Your task to perform on an android device: turn off notifications in google photos Image 0: 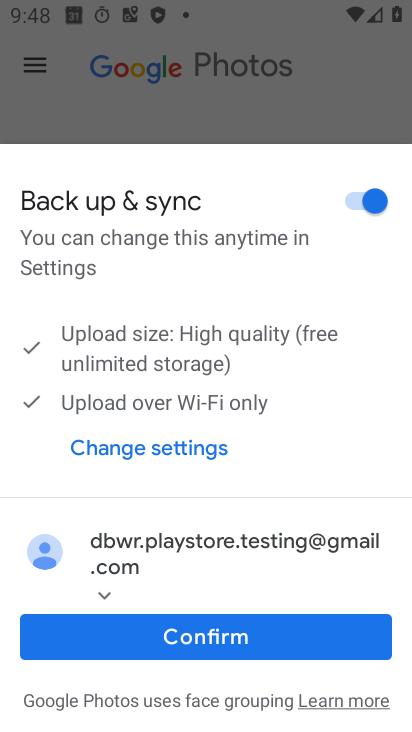
Step 0: press home button
Your task to perform on an android device: turn off notifications in google photos Image 1: 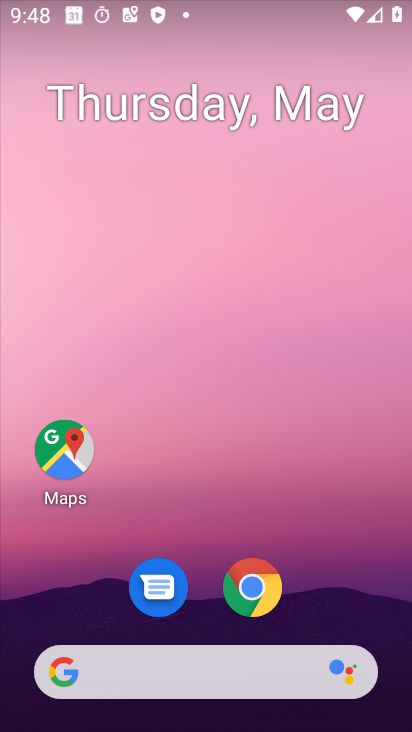
Step 1: drag from (362, 643) to (371, 18)
Your task to perform on an android device: turn off notifications in google photos Image 2: 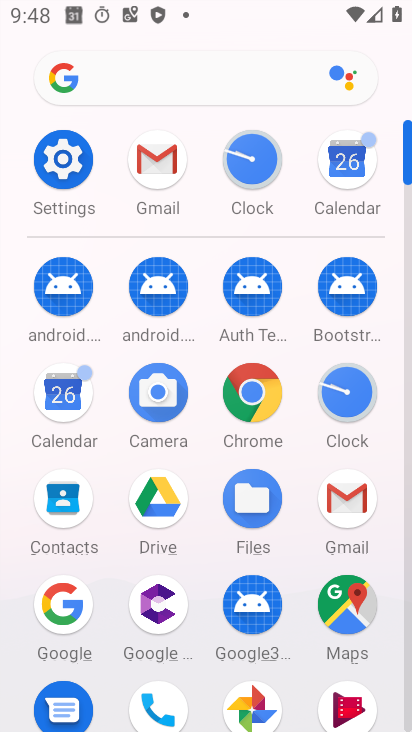
Step 2: click (407, 537)
Your task to perform on an android device: turn off notifications in google photos Image 3: 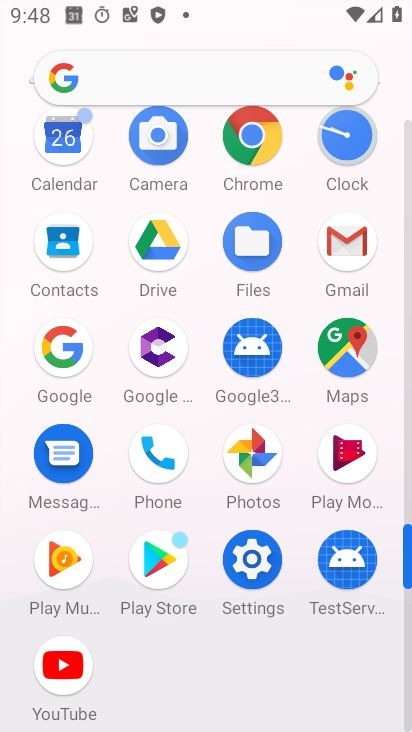
Step 3: click (258, 455)
Your task to perform on an android device: turn off notifications in google photos Image 4: 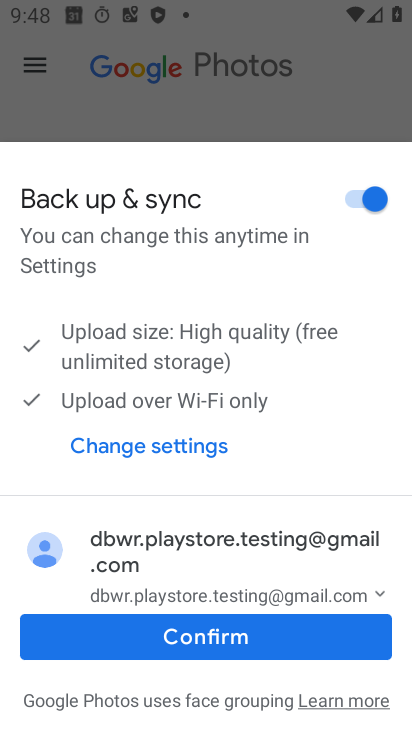
Step 4: click (218, 642)
Your task to perform on an android device: turn off notifications in google photos Image 5: 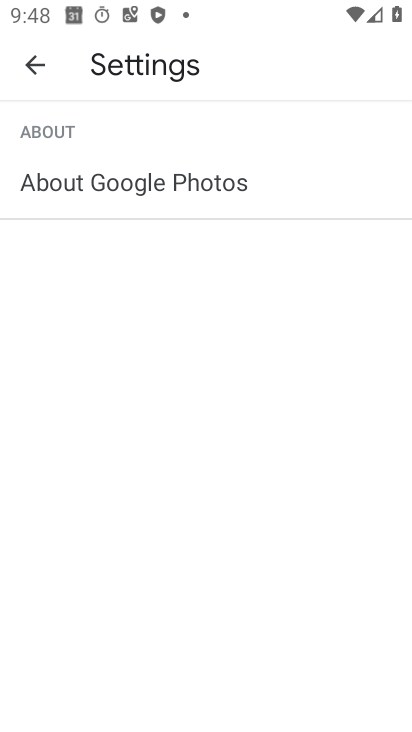
Step 5: click (38, 66)
Your task to perform on an android device: turn off notifications in google photos Image 6: 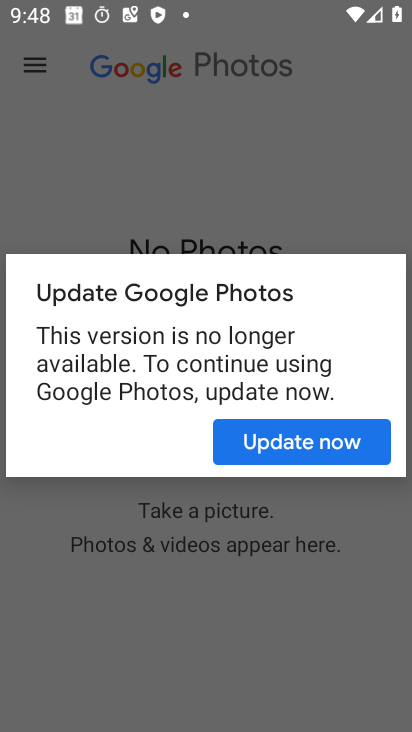
Step 6: click (321, 452)
Your task to perform on an android device: turn off notifications in google photos Image 7: 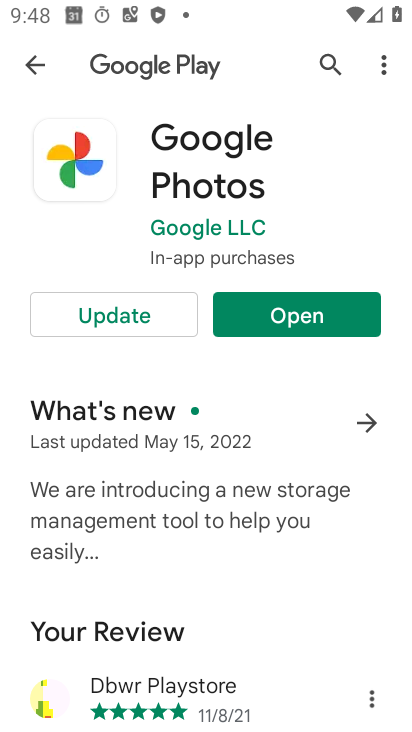
Step 7: click (284, 308)
Your task to perform on an android device: turn off notifications in google photos Image 8: 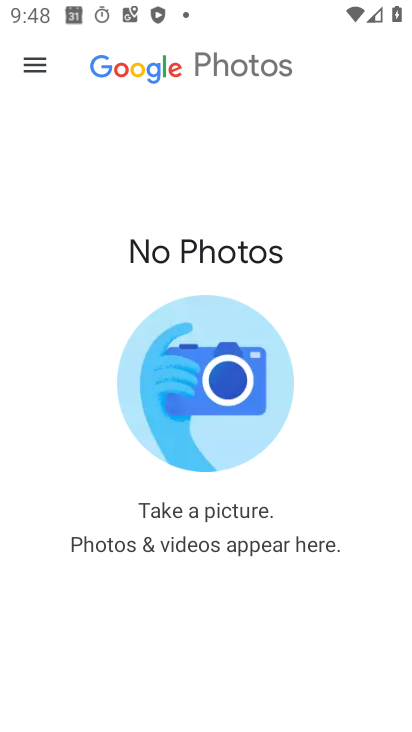
Step 8: click (28, 67)
Your task to perform on an android device: turn off notifications in google photos Image 9: 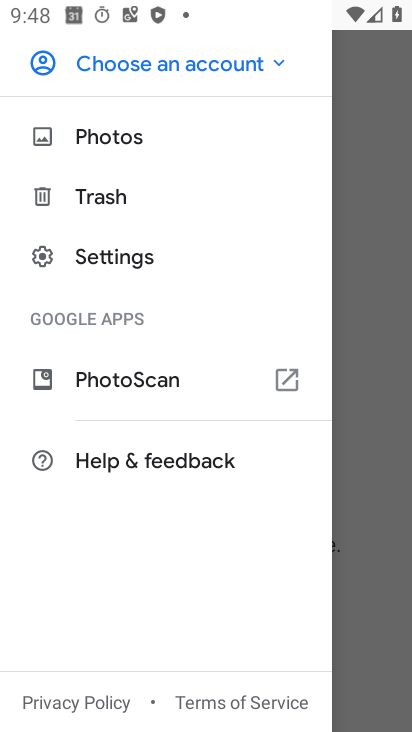
Step 9: click (98, 255)
Your task to perform on an android device: turn off notifications in google photos Image 10: 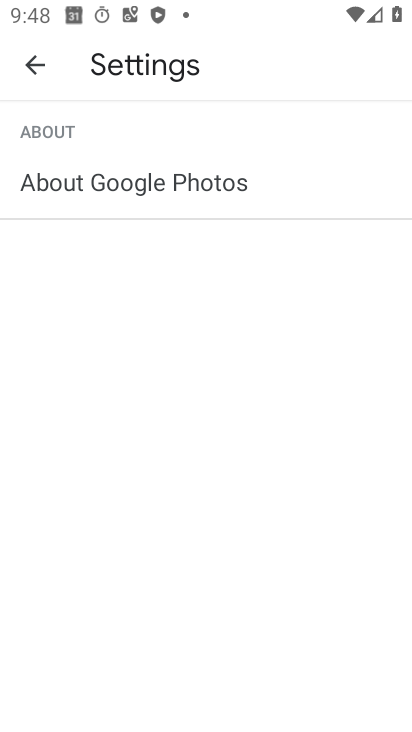
Step 10: click (22, 63)
Your task to perform on an android device: turn off notifications in google photos Image 11: 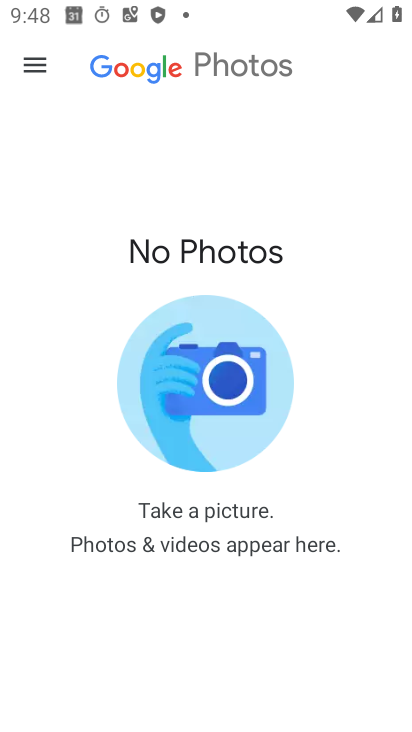
Step 11: click (24, 63)
Your task to perform on an android device: turn off notifications in google photos Image 12: 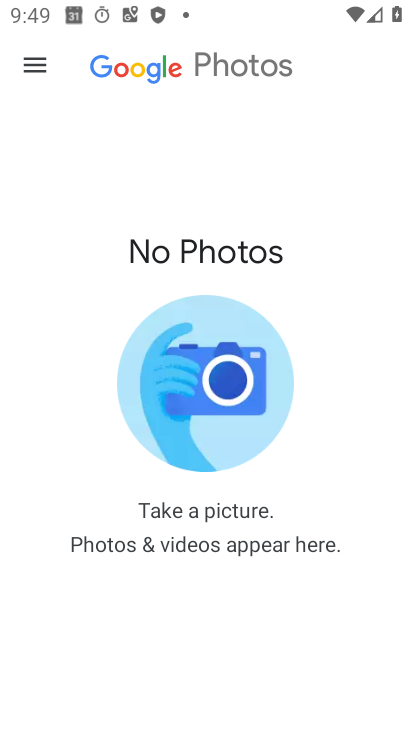
Step 12: click (32, 64)
Your task to perform on an android device: turn off notifications in google photos Image 13: 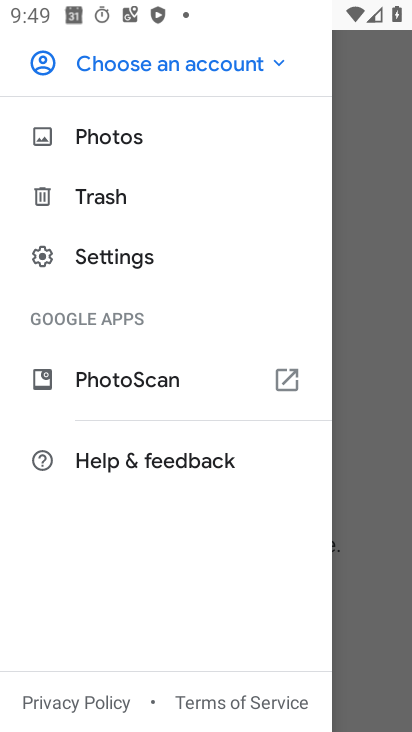
Step 13: click (82, 266)
Your task to perform on an android device: turn off notifications in google photos Image 14: 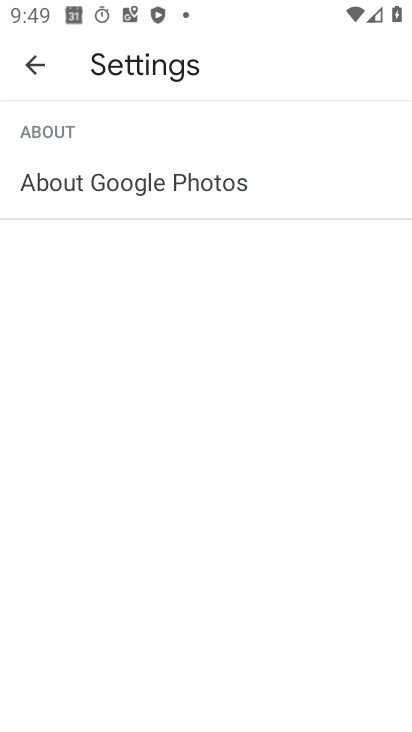
Step 14: task complete